Your task to perform on an android device: turn off javascript in the chrome app Image 0: 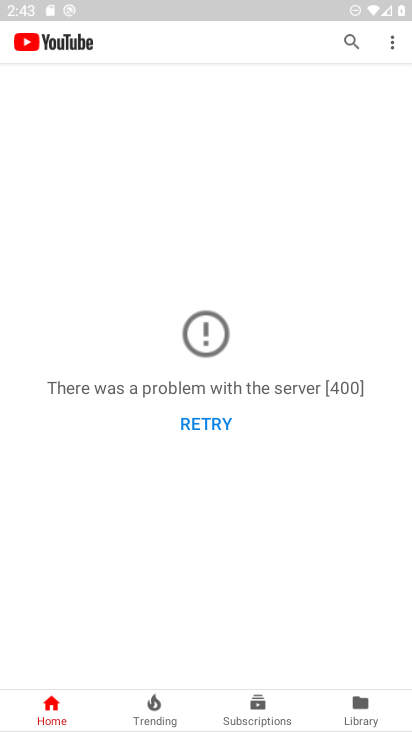
Step 0: press back button
Your task to perform on an android device: turn off javascript in the chrome app Image 1: 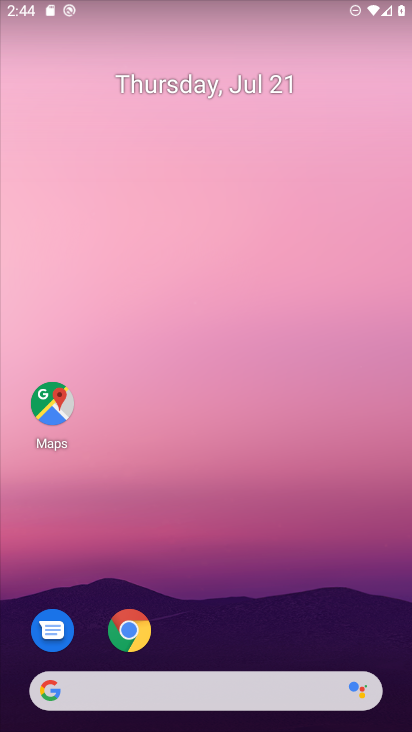
Step 1: click (136, 626)
Your task to perform on an android device: turn off javascript in the chrome app Image 2: 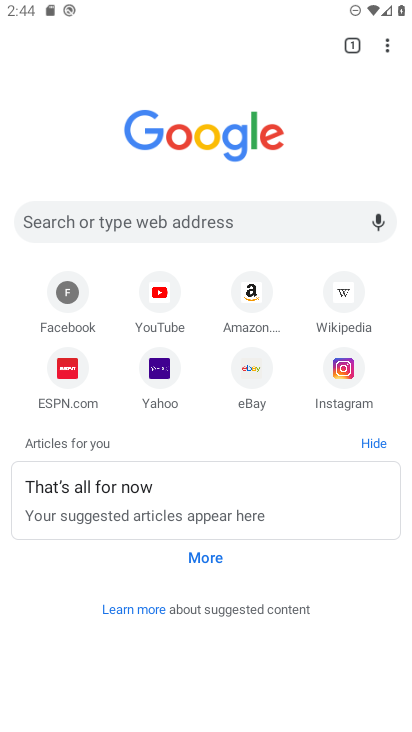
Step 2: drag from (386, 41) to (234, 386)
Your task to perform on an android device: turn off javascript in the chrome app Image 3: 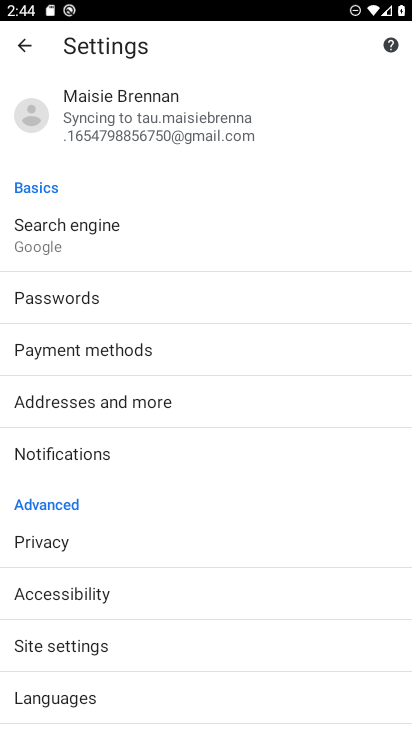
Step 3: click (55, 645)
Your task to perform on an android device: turn off javascript in the chrome app Image 4: 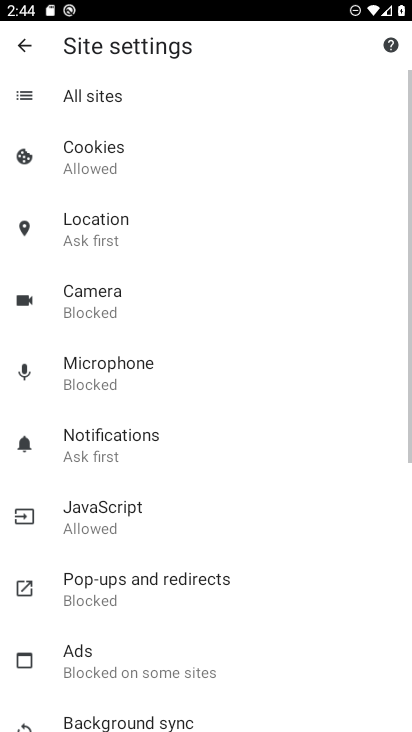
Step 4: click (145, 511)
Your task to perform on an android device: turn off javascript in the chrome app Image 5: 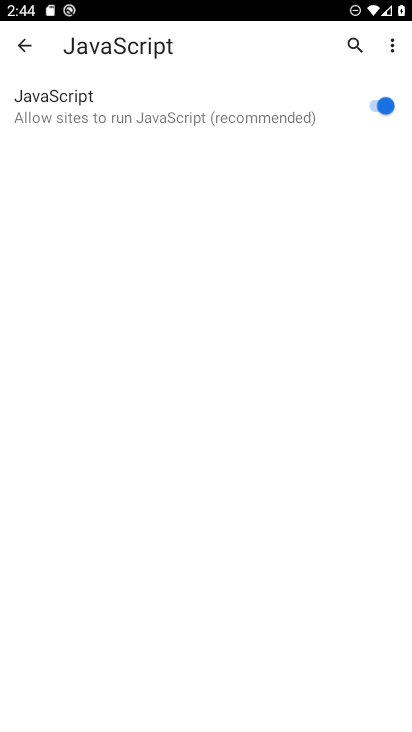
Step 5: click (383, 103)
Your task to perform on an android device: turn off javascript in the chrome app Image 6: 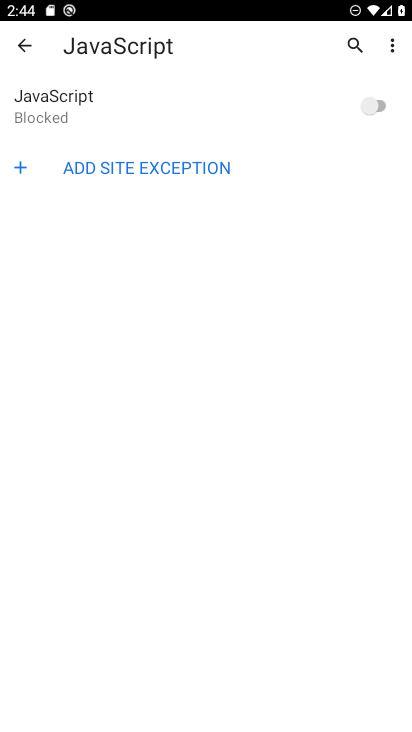
Step 6: task complete